Your task to perform on an android device: toggle improve location accuracy Image 0: 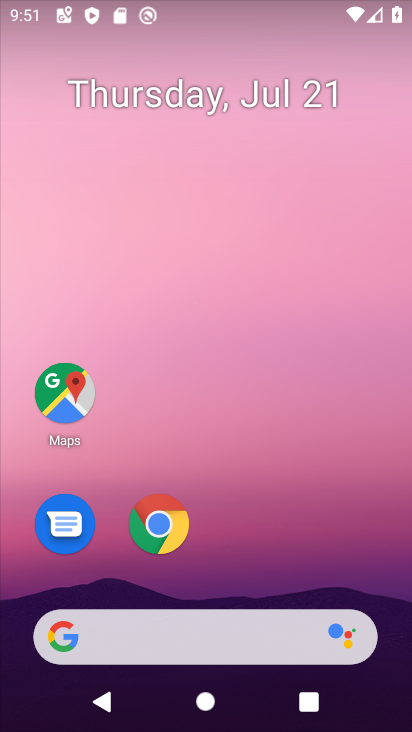
Step 0: press home button
Your task to perform on an android device: toggle improve location accuracy Image 1: 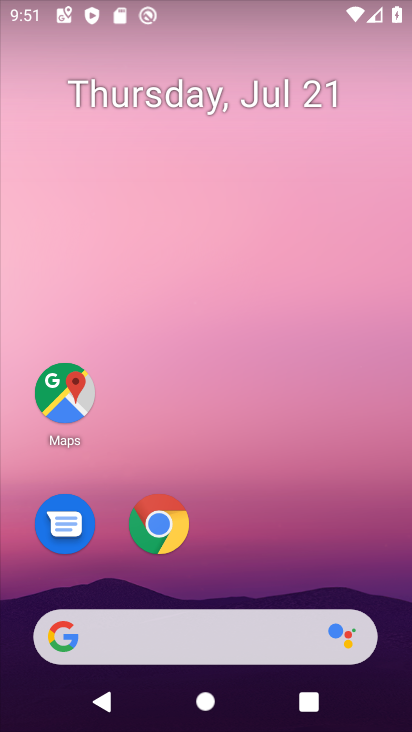
Step 1: drag from (246, 290) to (279, 140)
Your task to perform on an android device: toggle improve location accuracy Image 2: 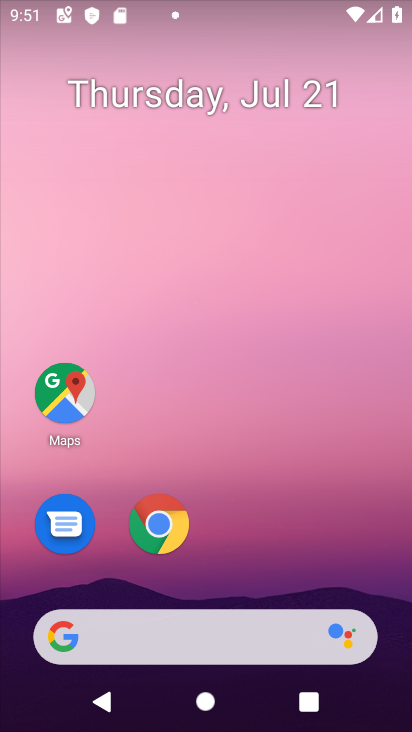
Step 2: drag from (184, 641) to (332, 86)
Your task to perform on an android device: toggle improve location accuracy Image 3: 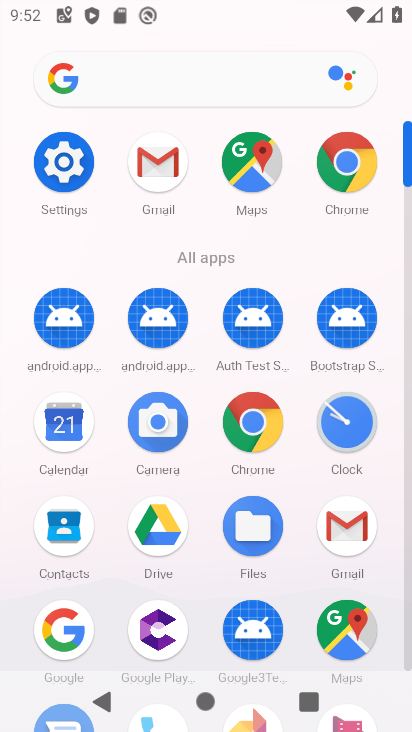
Step 3: click (62, 154)
Your task to perform on an android device: toggle improve location accuracy Image 4: 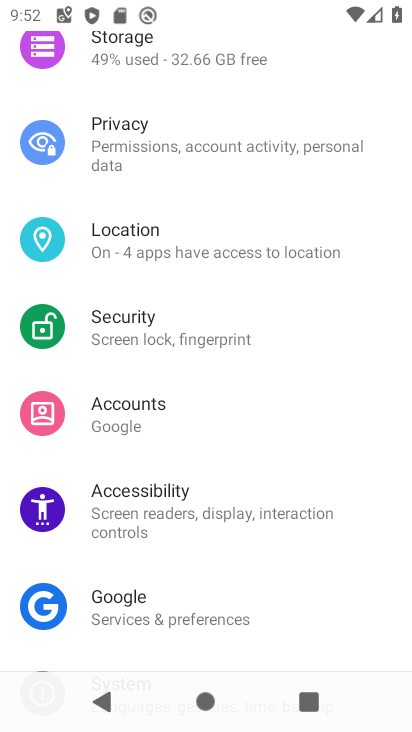
Step 4: click (183, 244)
Your task to perform on an android device: toggle improve location accuracy Image 5: 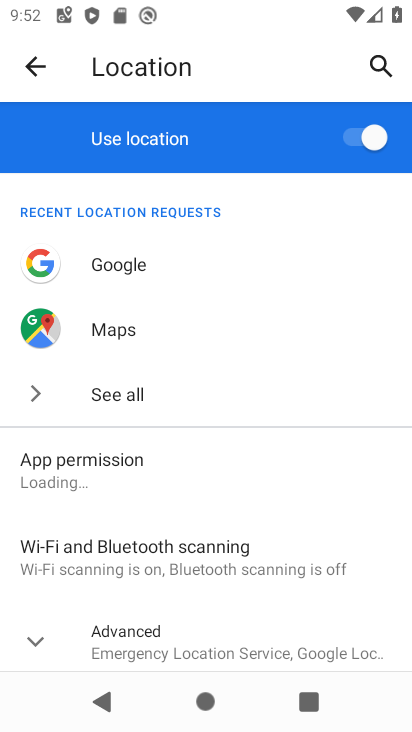
Step 5: drag from (241, 494) to (280, 268)
Your task to perform on an android device: toggle improve location accuracy Image 6: 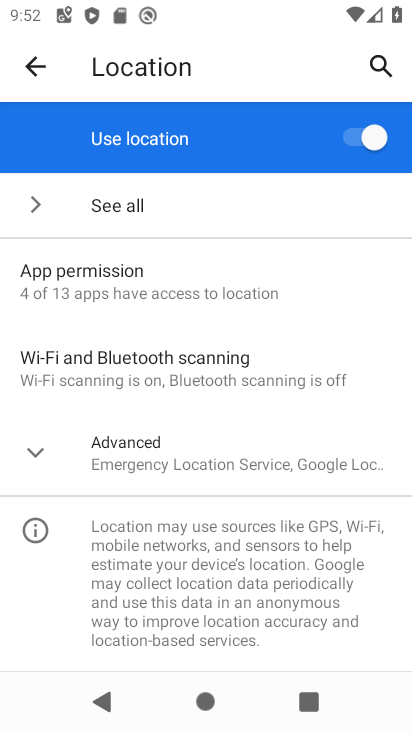
Step 6: click (132, 457)
Your task to perform on an android device: toggle improve location accuracy Image 7: 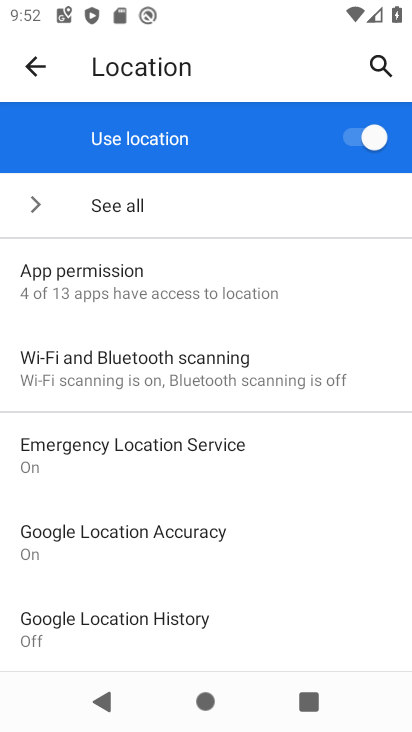
Step 7: click (184, 533)
Your task to perform on an android device: toggle improve location accuracy Image 8: 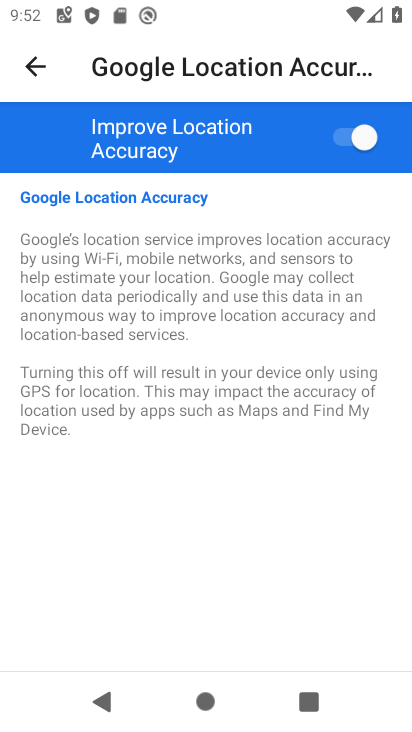
Step 8: click (348, 133)
Your task to perform on an android device: toggle improve location accuracy Image 9: 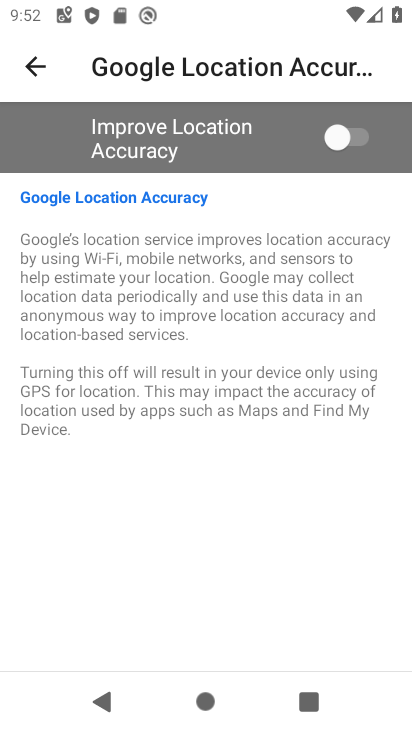
Step 9: task complete